Your task to perform on an android device: When is my next appointment? Image 0: 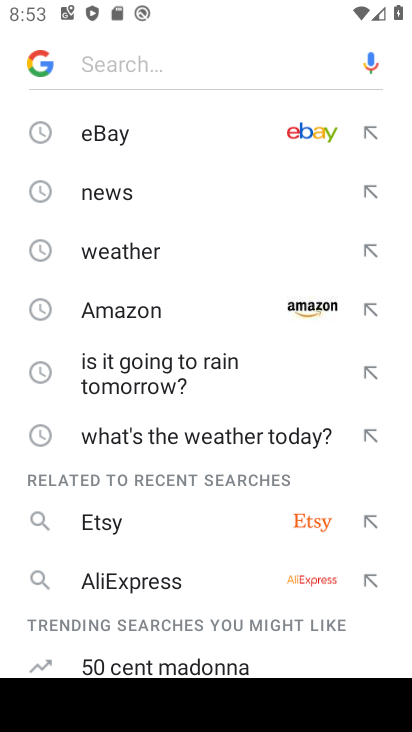
Step 0: press home button
Your task to perform on an android device: When is my next appointment? Image 1: 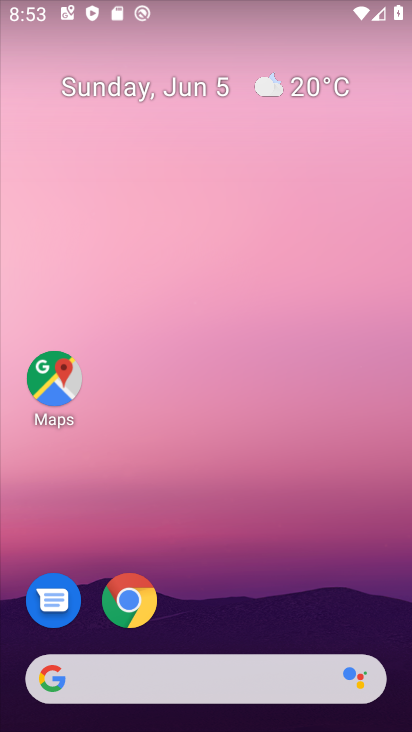
Step 1: drag from (241, 541) to (199, 27)
Your task to perform on an android device: When is my next appointment? Image 2: 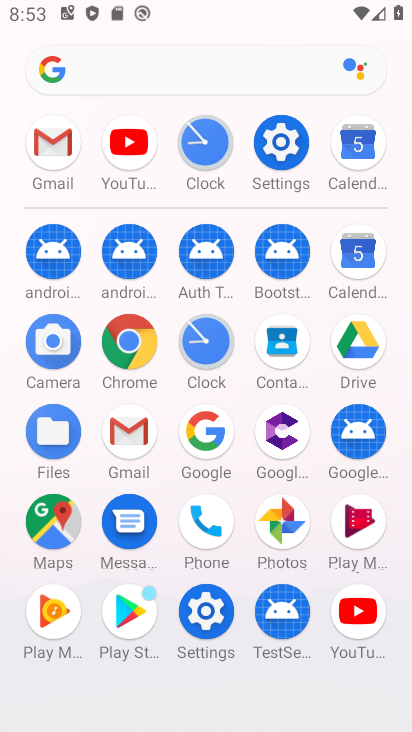
Step 2: click (357, 142)
Your task to perform on an android device: When is my next appointment? Image 3: 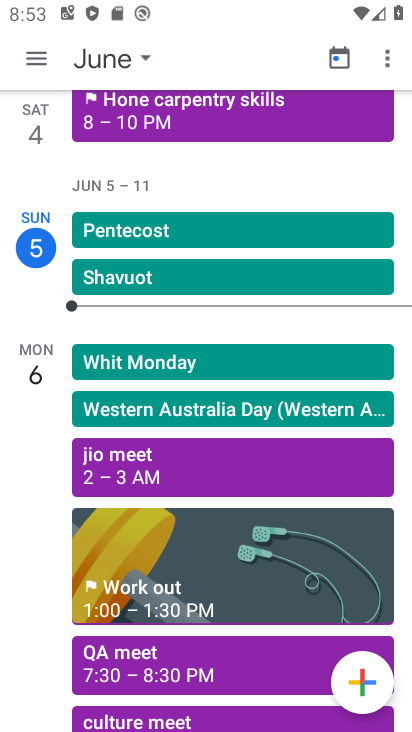
Step 3: task complete